Your task to perform on an android device: Open wifi settings Image 0: 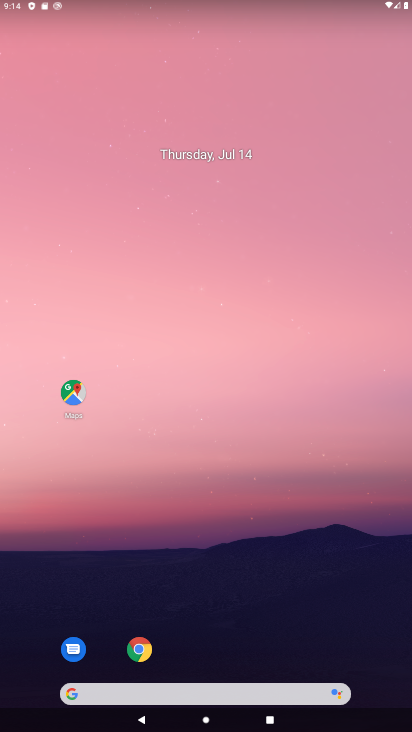
Step 0: drag from (186, 490) to (186, 26)
Your task to perform on an android device: Open wifi settings Image 1: 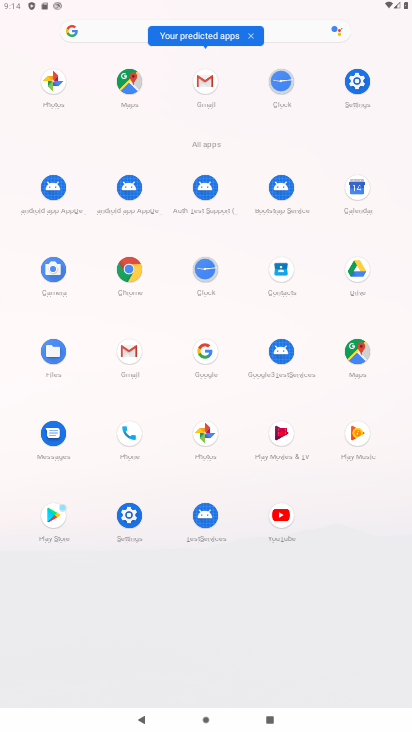
Step 1: click (352, 84)
Your task to perform on an android device: Open wifi settings Image 2: 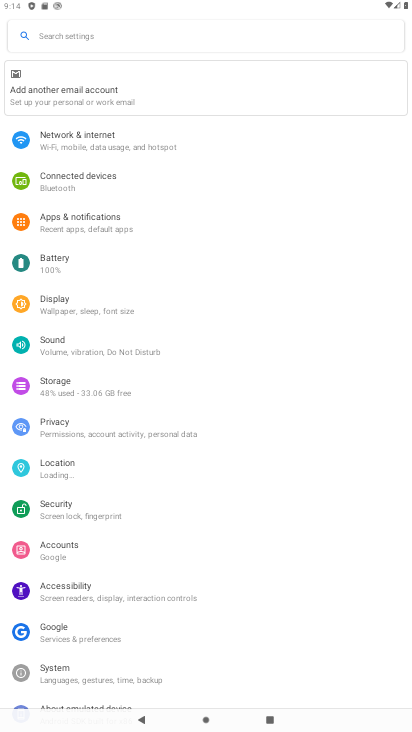
Step 2: click (69, 144)
Your task to perform on an android device: Open wifi settings Image 3: 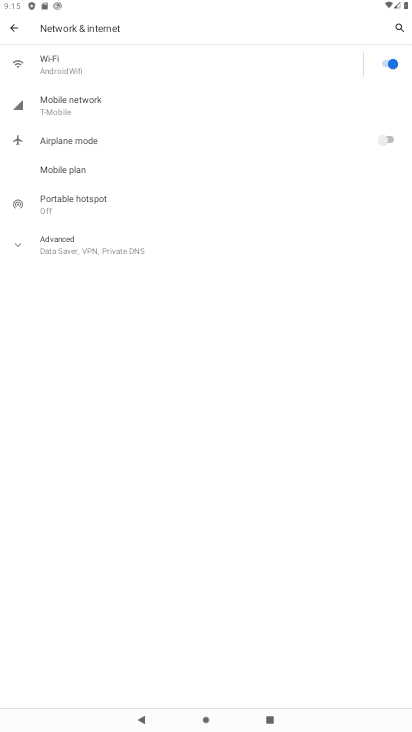
Step 3: click (174, 70)
Your task to perform on an android device: Open wifi settings Image 4: 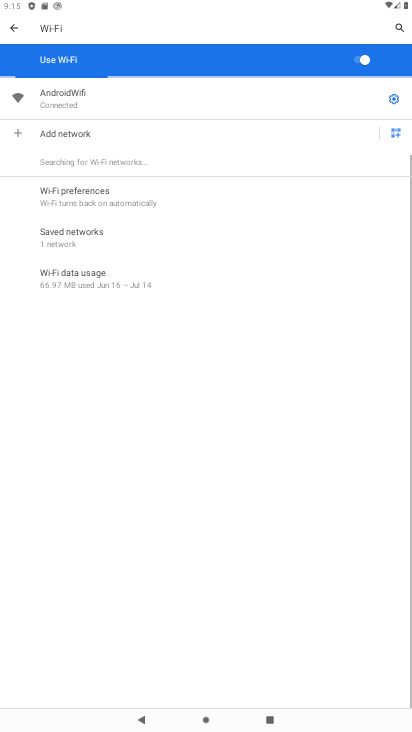
Step 4: task complete